Your task to perform on an android device: turn on sleep mode Image 0: 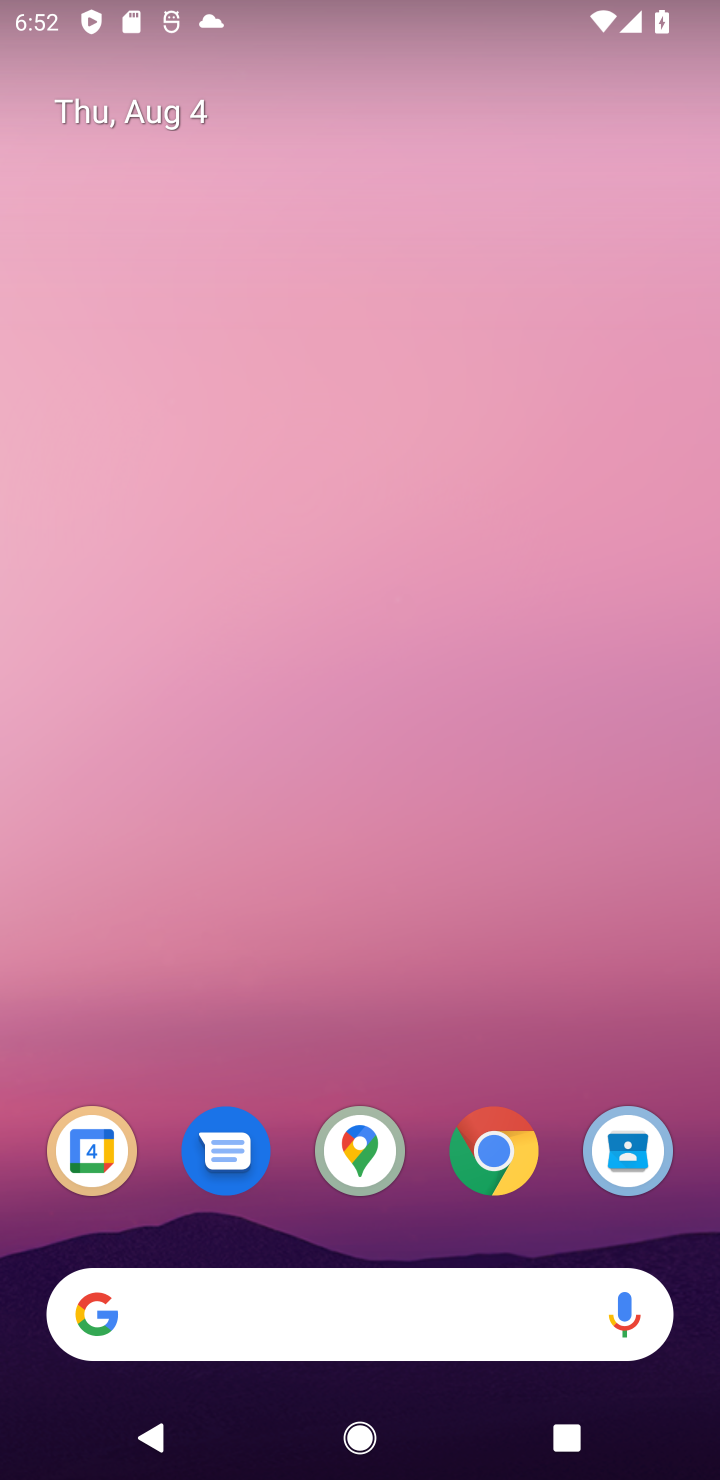
Step 0: drag from (306, 1243) to (371, 1)
Your task to perform on an android device: turn on sleep mode Image 1: 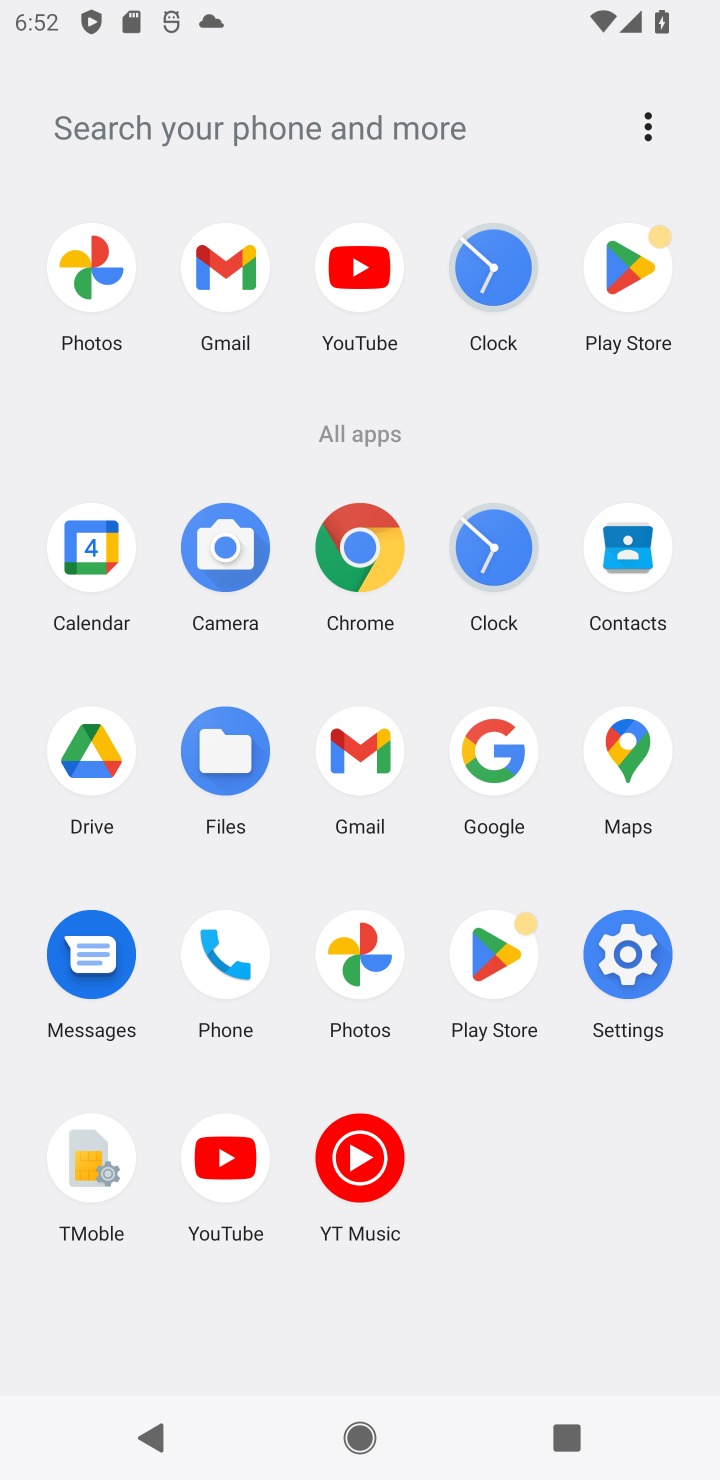
Step 1: click (613, 969)
Your task to perform on an android device: turn on sleep mode Image 2: 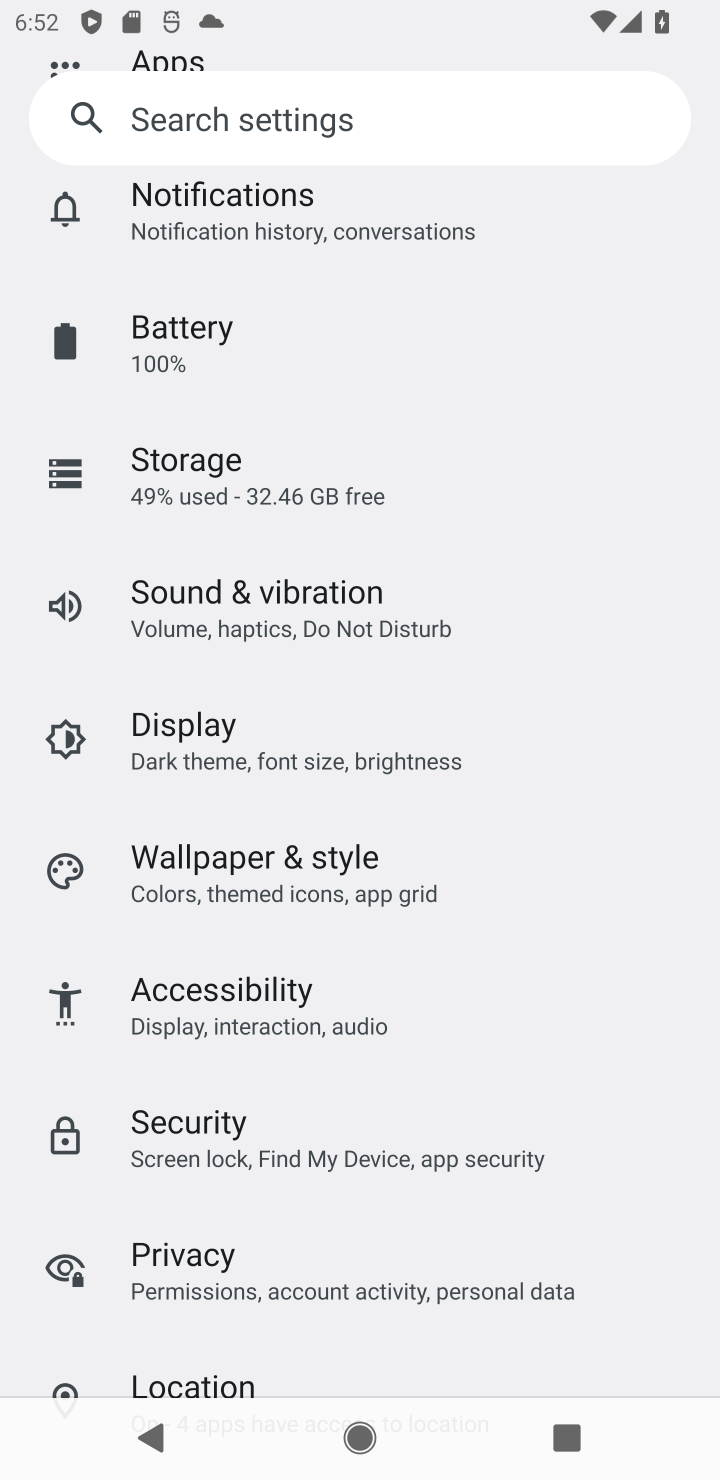
Step 2: click (316, 122)
Your task to perform on an android device: turn on sleep mode Image 3: 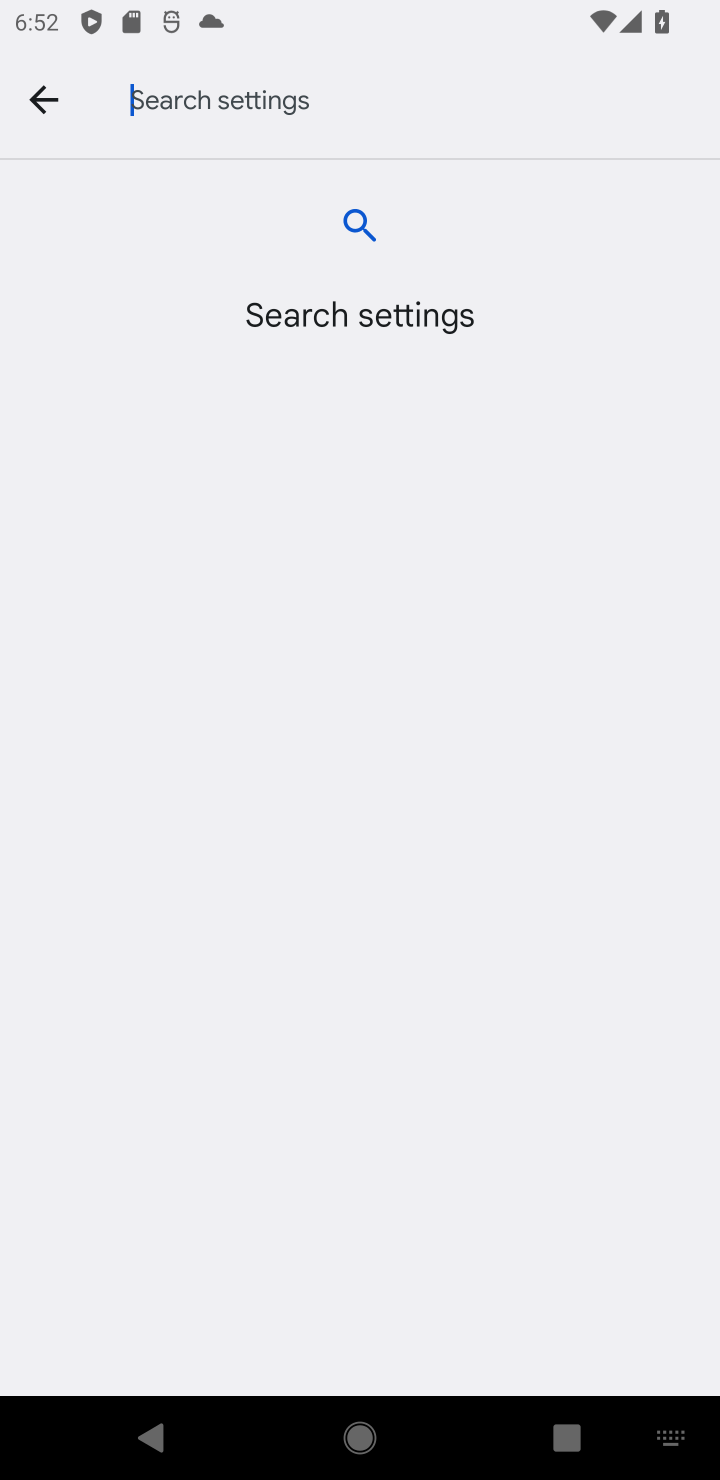
Step 3: type "sleep mode"
Your task to perform on an android device: turn on sleep mode Image 4: 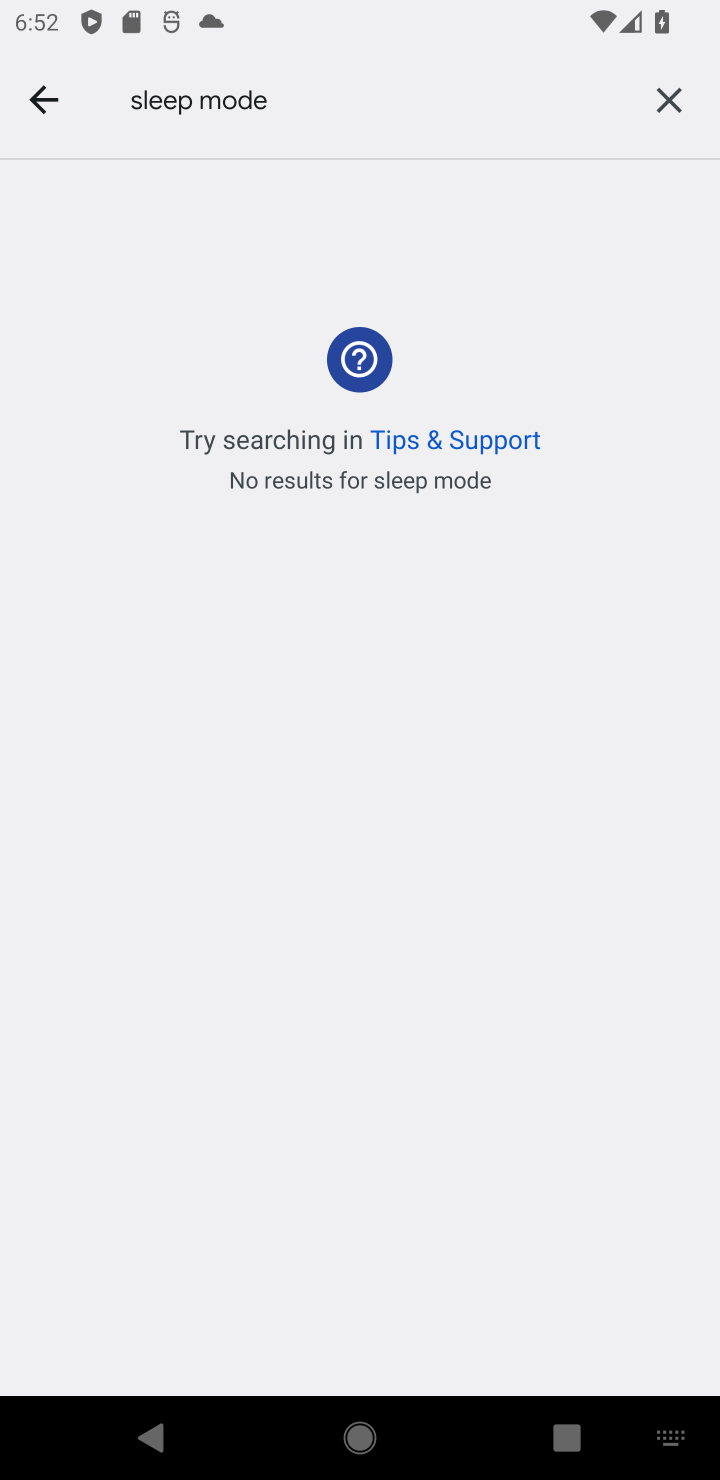
Step 4: task complete